Your task to perform on an android device: Open calendar and show me the fourth week of next month Image 0: 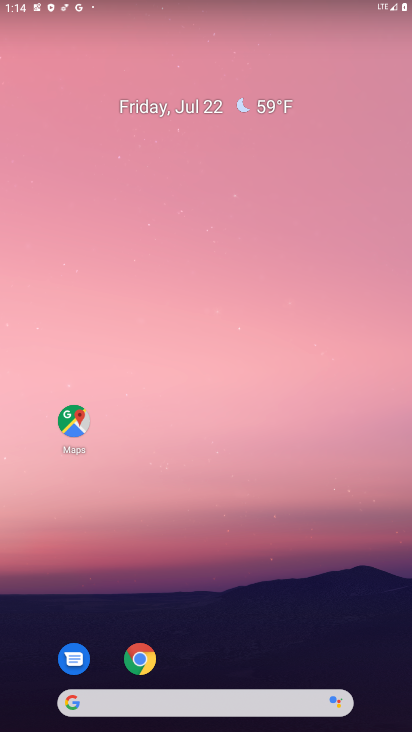
Step 0: drag from (294, 605) to (267, 27)
Your task to perform on an android device: Open calendar and show me the fourth week of next month Image 1: 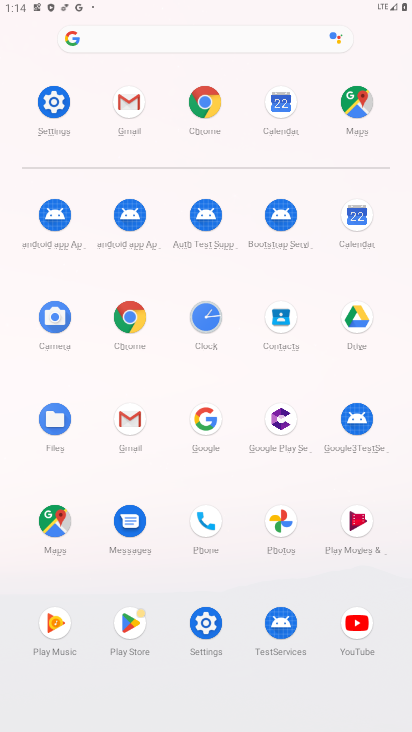
Step 1: click (362, 224)
Your task to perform on an android device: Open calendar and show me the fourth week of next month Image 2: 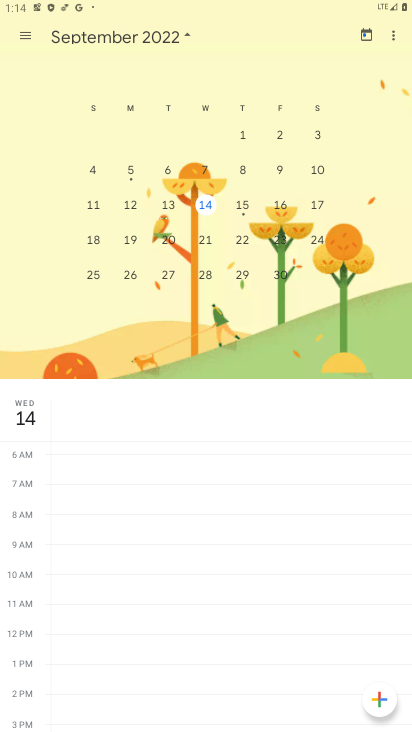
Step 2: drag from (365, 201) to (44, 178)
Your task to perform on an android device: Open calendar and show me the fourth week of next month Image 3: 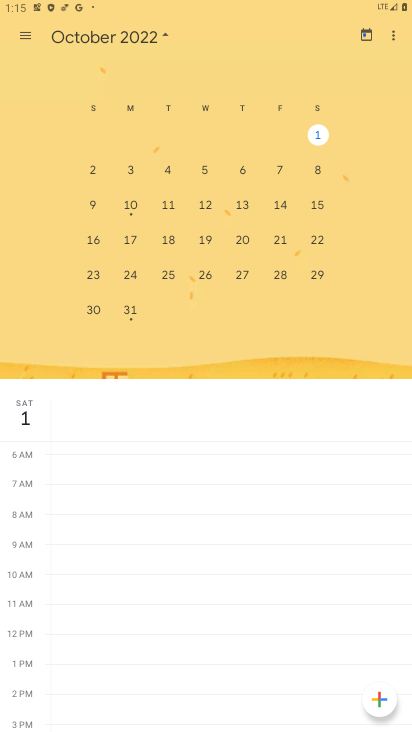
Step 3: click (271, 281)
Your task to perform on an android device: Open calendar and show me the fourth week of next month Image 4: 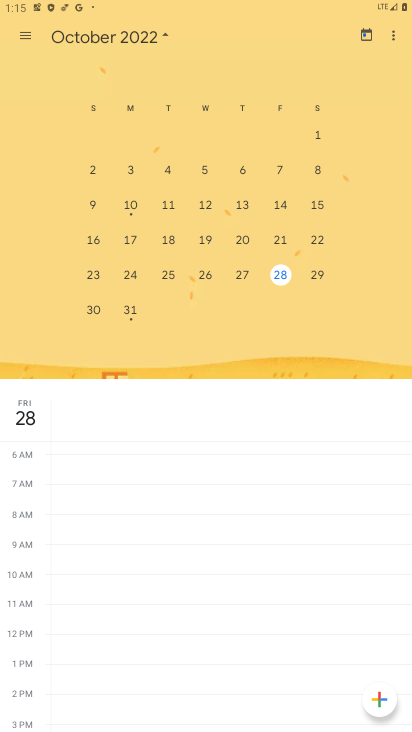
Step 4: task complete